Your task to perform on an android device: Go to calendar. Show me events next week Image 0: 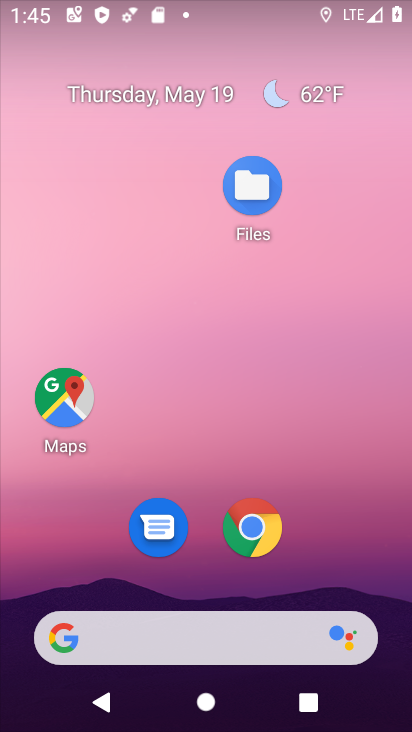
Step 0: drag from (359, 529) to (344, 94)
Your task to perform on an android device: Go to calendar. Show me events next week Image 1: 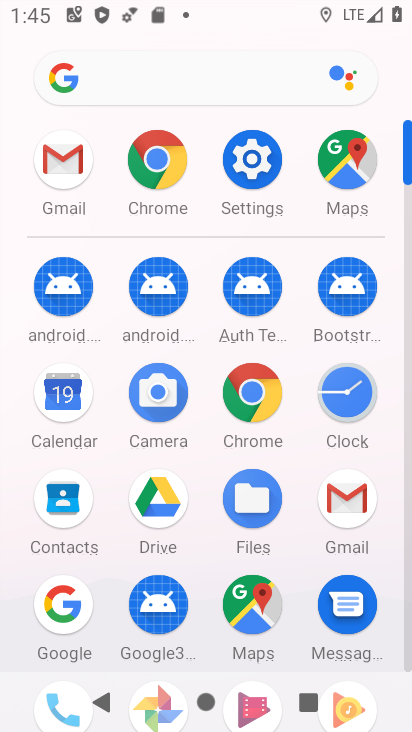
Step 1: click (65, 382)
Your task to perform on an android device: Go to calendar. Show me events next week Image 2: 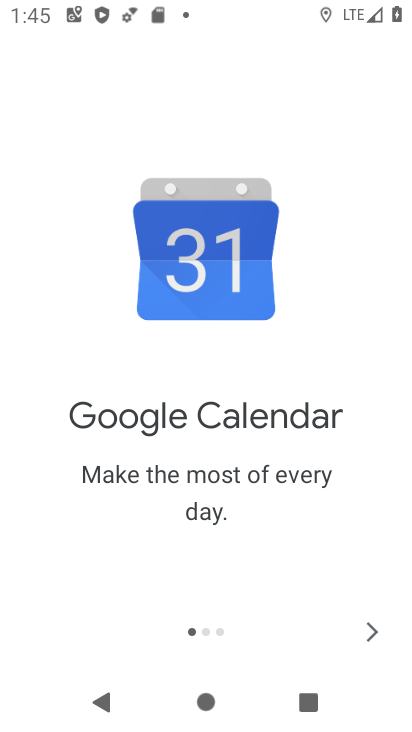
Step 2: click (369, 633)
Your task to perform on an android device: Go to calendar. Show me events next week Image 3: 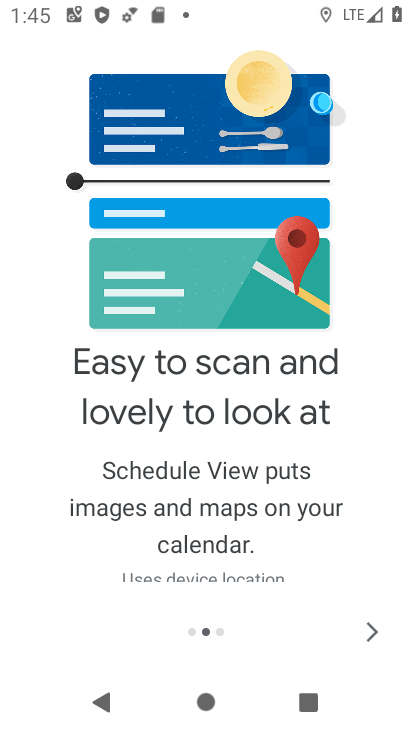
Step 3: click (370, 633)
Your task to perform on an android device: Go to calendar. Show me events next week Image 4: 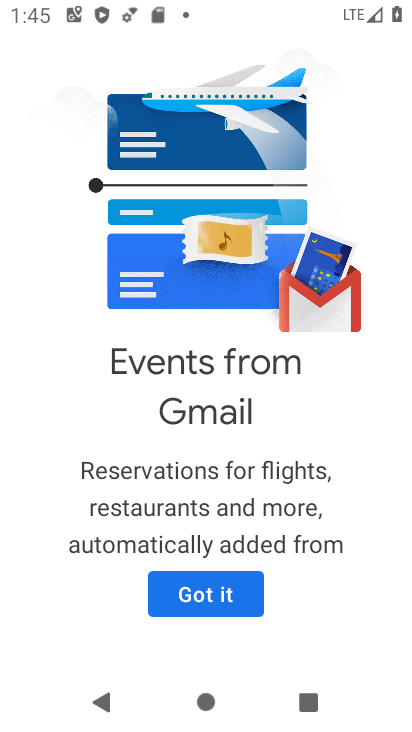
Step 4: click (229, 596)
Your task to perform on an android device: Go to calendar. Show me events next week Image 5: 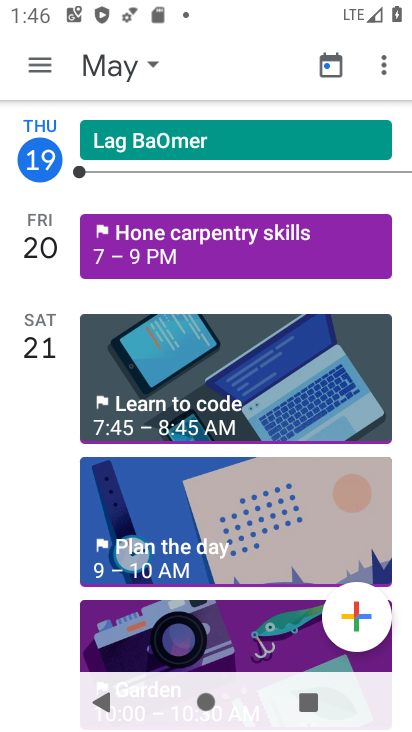
Step 5: click (99, 66)
Your task to perform on an android device: Go to calendar. Show me events next week Image 6: 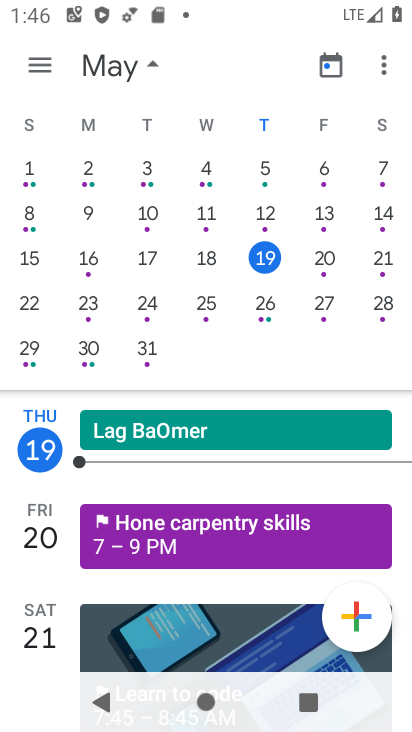
Step 6: drag from (365, 217) to (29, 220)
Your task to perform on an android device: Go to calendar. Show me events next week Image 7: 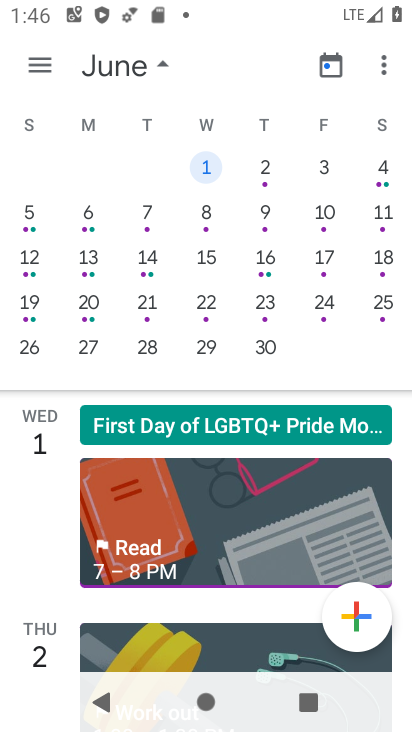
Step 7: drag from (181, 265) to (344, 268)
Your task to perform on an android device: Go to calendar. Show me events next week Image 8: 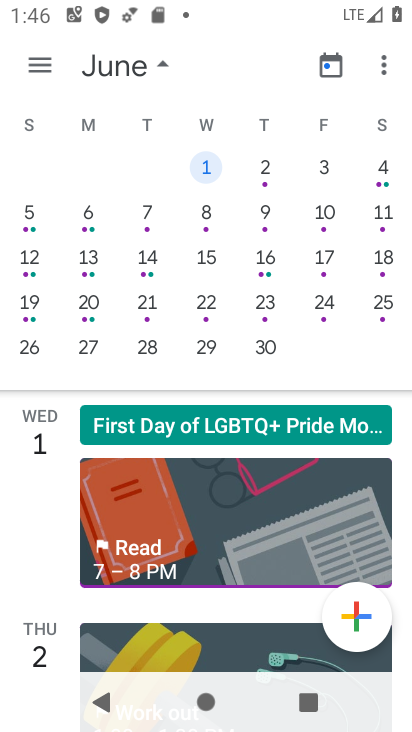
Step 8: drag from (145, 272) to (360, 273)
Your task to perform on an android device: Go to calendar. Show me events next week Image 9: 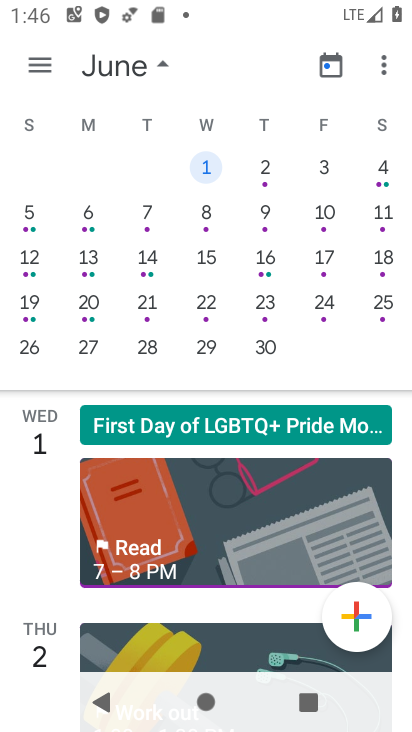
Step 9: drag from (107, 250) to (376, 239)
Your task to perform on an android device: Go to calendar. Show me events next week Image 10: 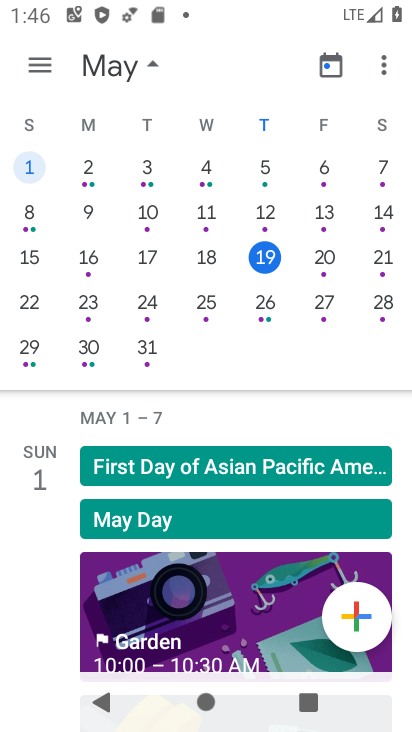
Step 10: click (40, 306)
Your task to perform on an android device: Go to calendar. Show me events next week Image 11: 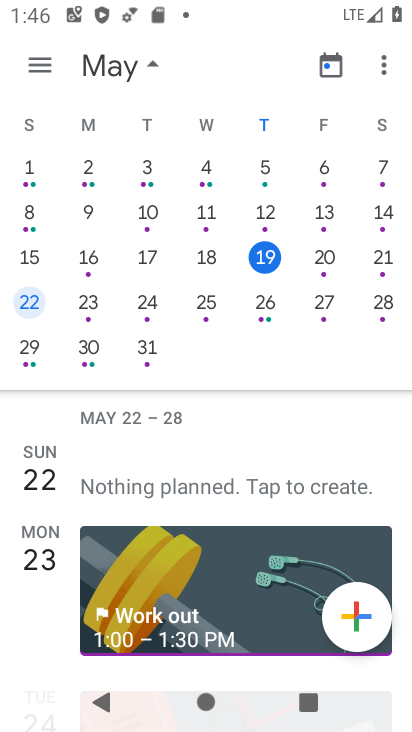
Step 11: task complete